Your task to perform on an android device: stop showing notifications on the lock screen Image 0: 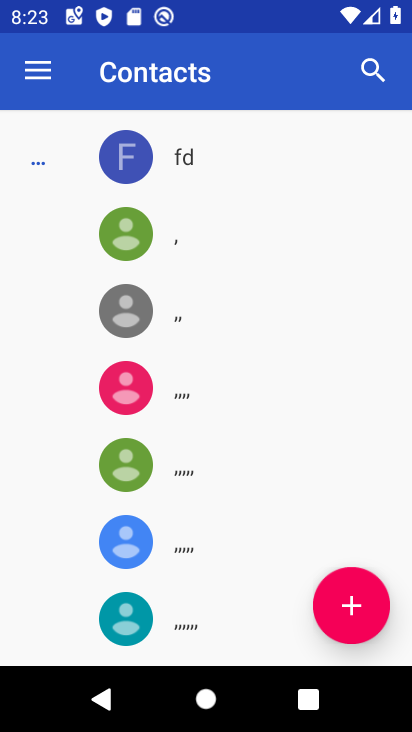
Step 0: press home button
Your task to perform on an android device: stop showing notifications on the lock screen Image 1: 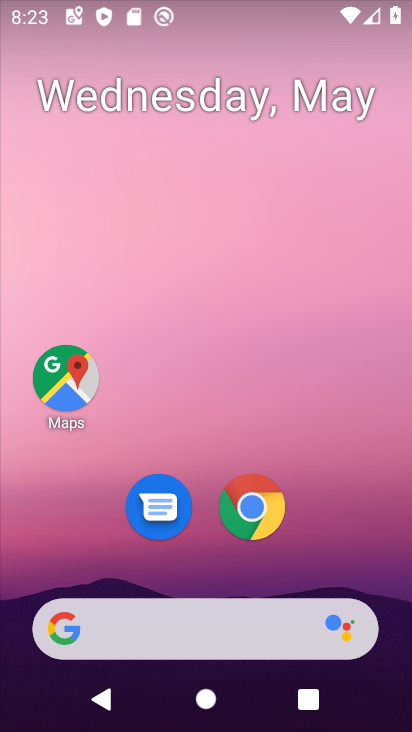
Step 1: drag from (333, 560) to (329, 286)
Your task to perform on an android device: stop showing notifications on the lock screen Image 2: 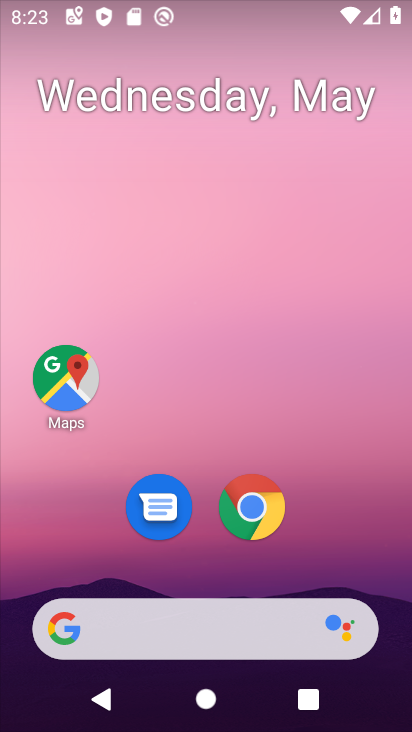
Step 2: drag from (302, 577) to (304, 267)
Your task to perform on an android device: stop showing notifications on the lock screen Image 3: 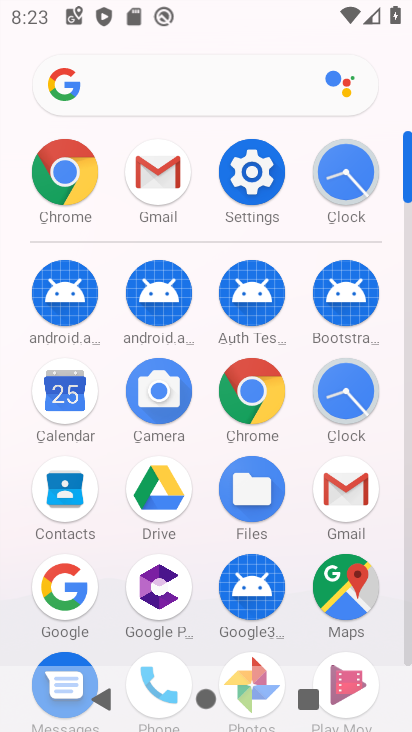
Step 3: click (237, 169)
Your task to perform on an android device: stop showing notifications on the lock screen Image 4: 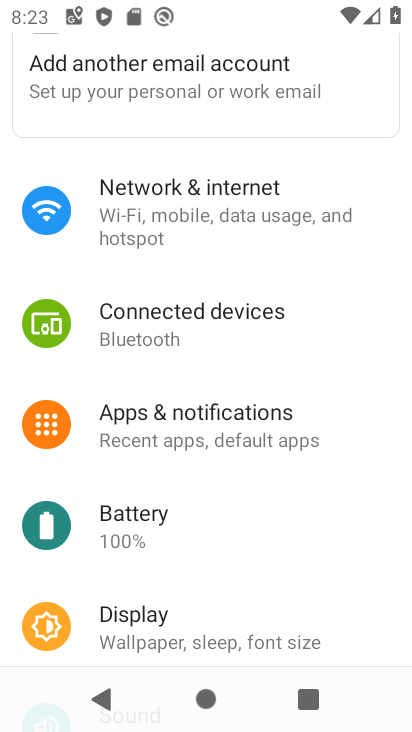
Step 4: click (170, 417)
Your task to perform on an android device: stop showing notifications on the lock screen Image 5: 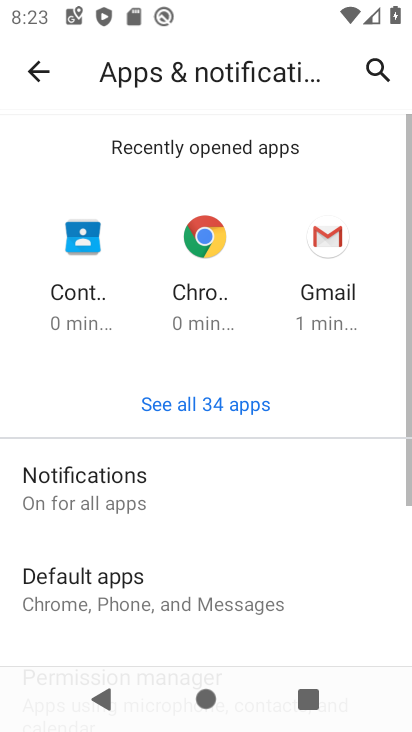
Step 5: click (135, 478)
Your task to perform on an android device: stop showing notifications on the lock screen Image 6: 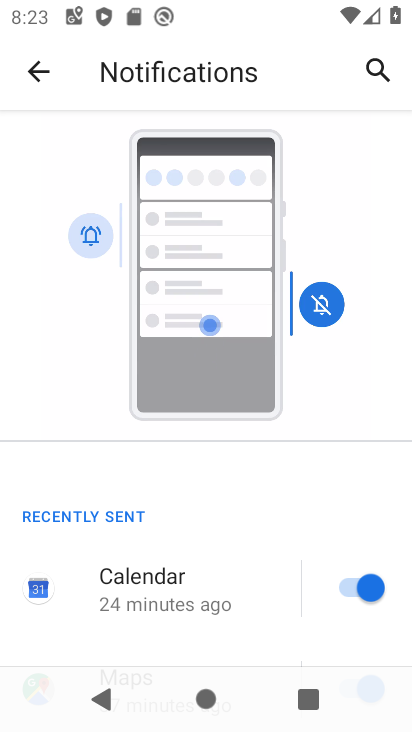
Step 6: drag from (193, 527) to (215, 261)
Your task to perform on an android device: stop showing notifications on the lock screen Image 7: 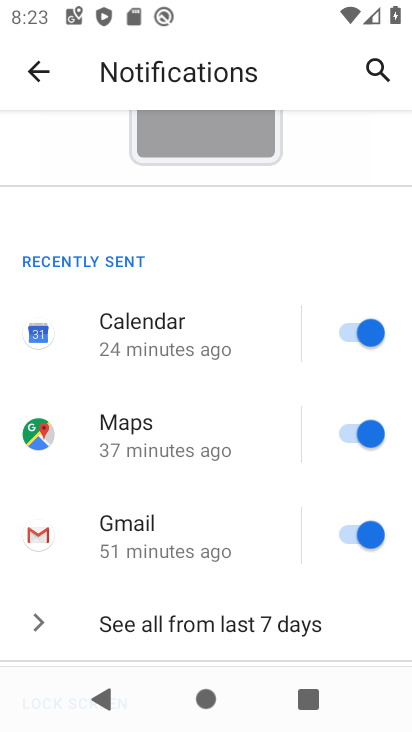
Step 7: drag from (236, 464) to (255, 147)
Your task to perform on an android device: stop showing notifications on the lock screen Image 8: 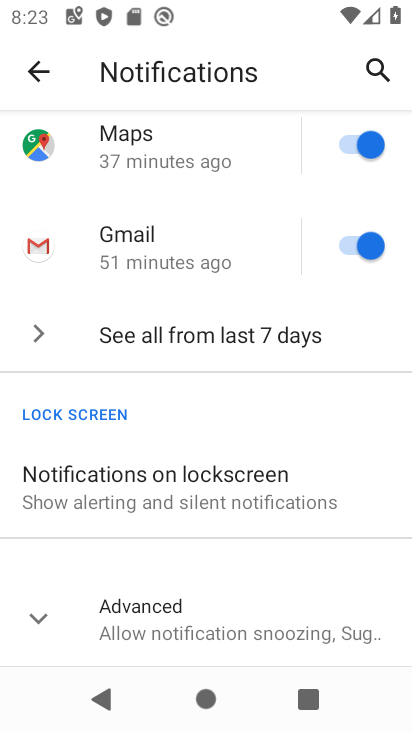
Step 8: click (203, 493)
Your task to perform on an android device: stop showing notifications on the lock screen Image 9: 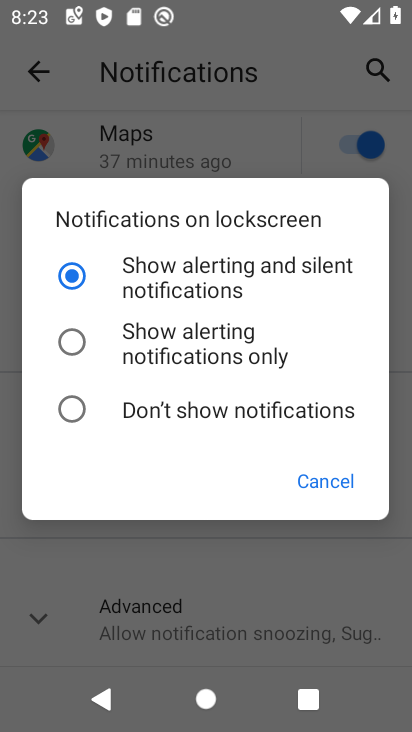
Step 9: click (119, 414)
Your task to perform on an android device: stop showing notifications on the lock screen Image 10: 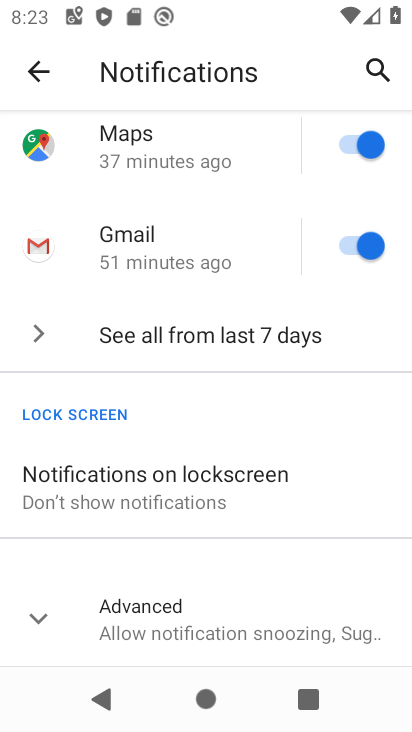
Step 10: task complete